Your task to perform on an android device: change notifications settings Image 0: 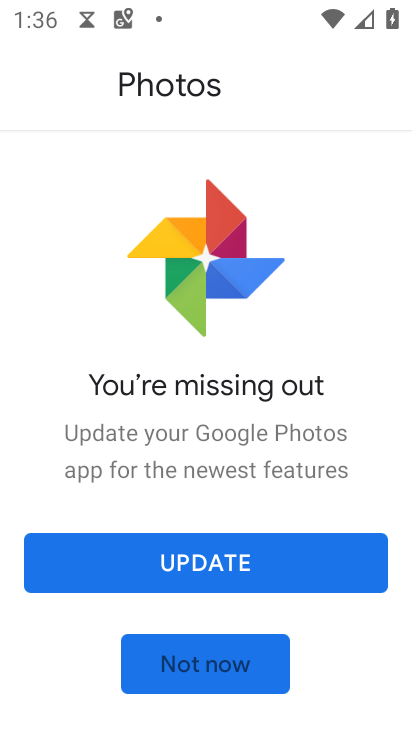
Step 0: press home button
Your task to perform on an android device: change notifications settings Image 1: 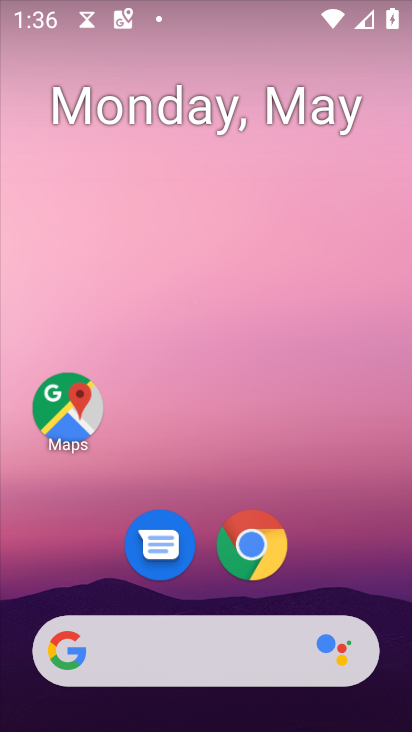
Step 1: drag from (352, 591) to (235, 114)
Your task to perform on an android device: change notifications settings Image 2: 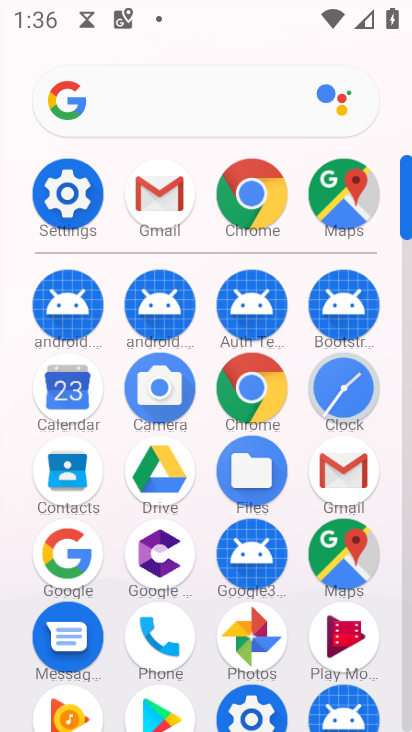
Step 2: click (66, 191)
Your task to perform on an android device: change notifications settings Image 3: 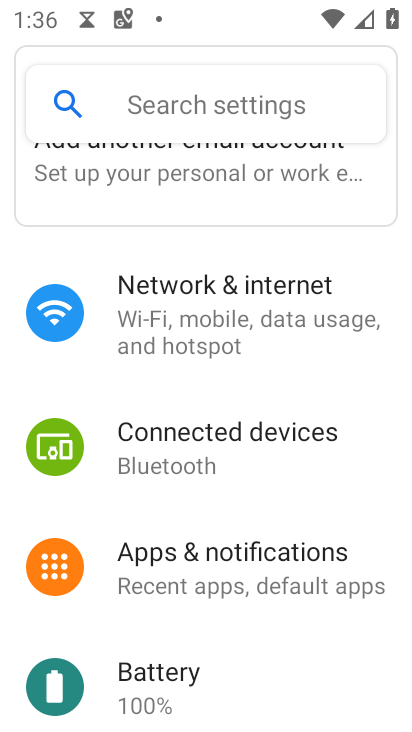
Step 3: click (221, 568)
Your task to perform on an android device: change notifications settings Image 4: 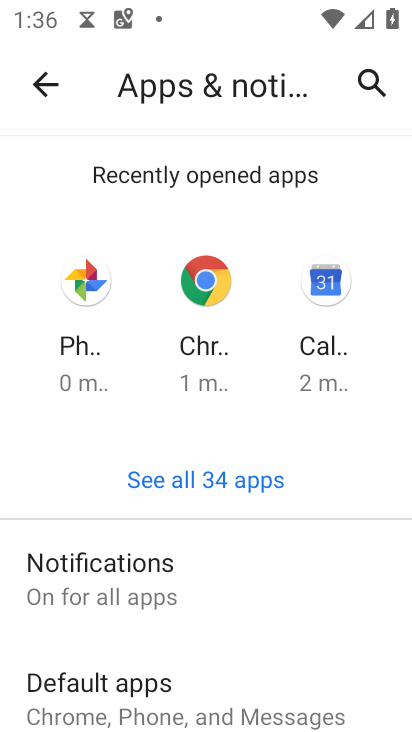
Step 4: click (179, 605)
Your task to perform on an android device: change notifications settings Image 5: 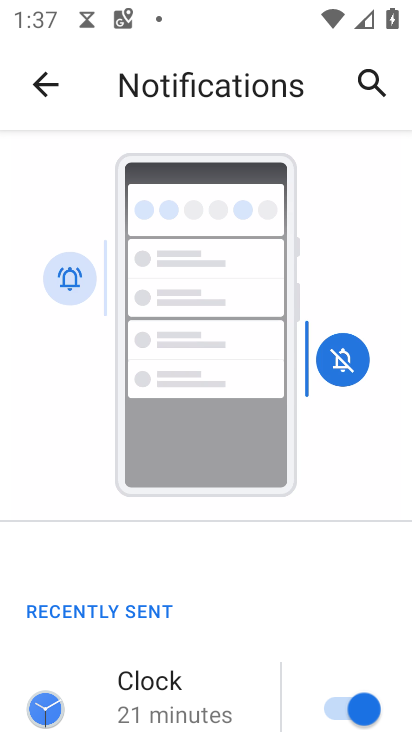
Step 5: task complete